Your task to perform on an android device: install app "Google Find My Device" Image 0: 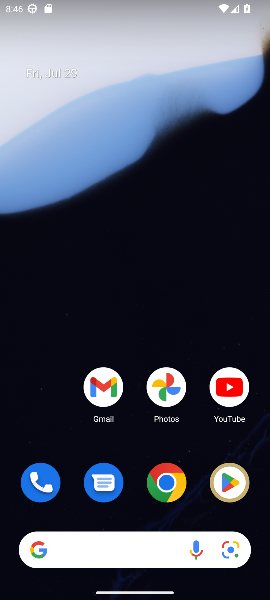
Step 0: drag from (136, 372) to (136, 229)
Your task to perform on an android device: install app "Google Find My Device" Image 1: 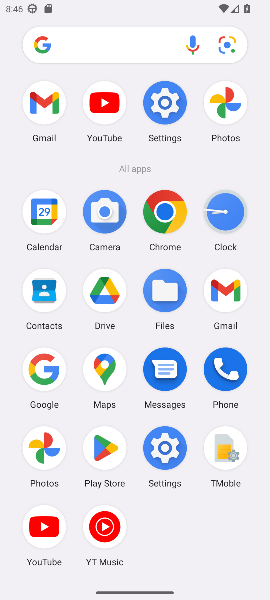
Step 1: click (102, 455)
Your task to perform on an android device: install app "Google Find My Device" Image 2: 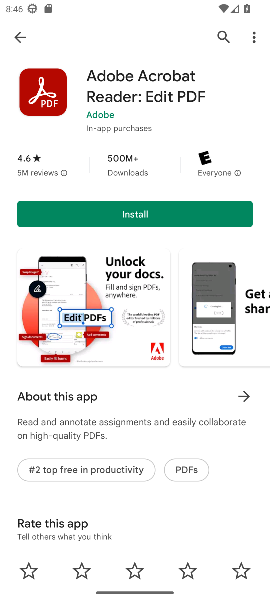
Step 2: click (220, 33)
Your task to perform on an android device: install app "Google Find My Device" Image 3: 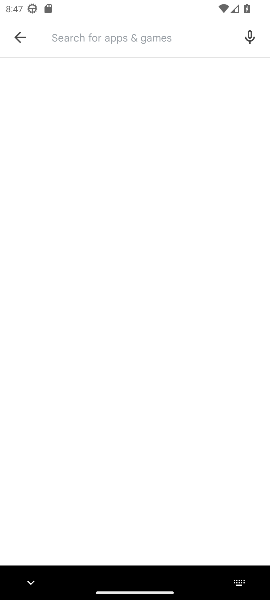
Step 3: type "Google Find My Device"
Your task to perform on an android device: install app "Google Find My Device" Image 4: 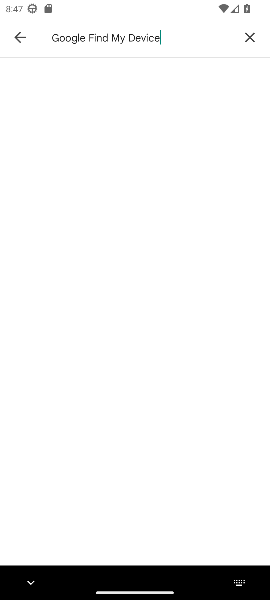
Step 4: type ""
Your task to perform on an android device: install app "Google Find My Device" Image 5: 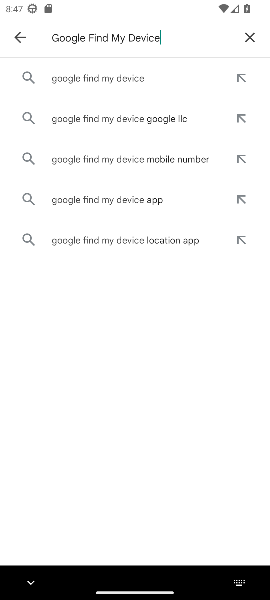
Step 5: click (111, 81)
Your task to perform on an android device: install app "Google Find My Device" Image 6: 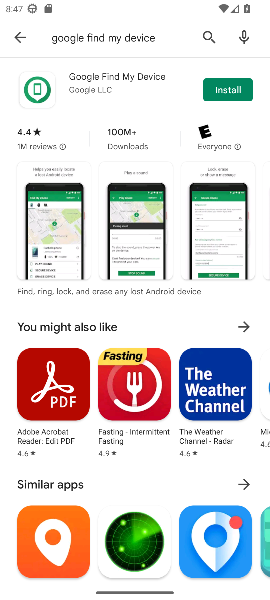
Step 6: click (207, 84)
Your task to perform on an android device: install app "Google Find My Device" Image 7: 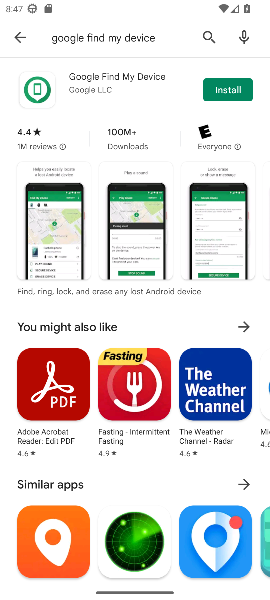
Step 7: click (227, 91)
Your task to perform on an android device: install app "Google Find My Device" Image 8: 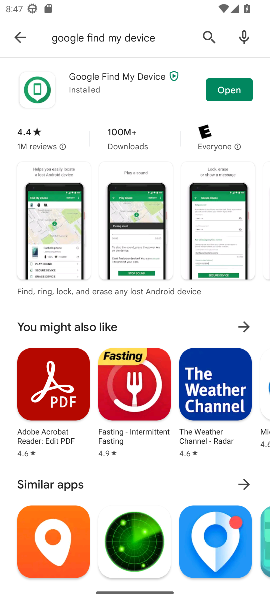
Step 8: task complete